Your task to perform on an android device: Open Chrome and go to the settings page Image 0: 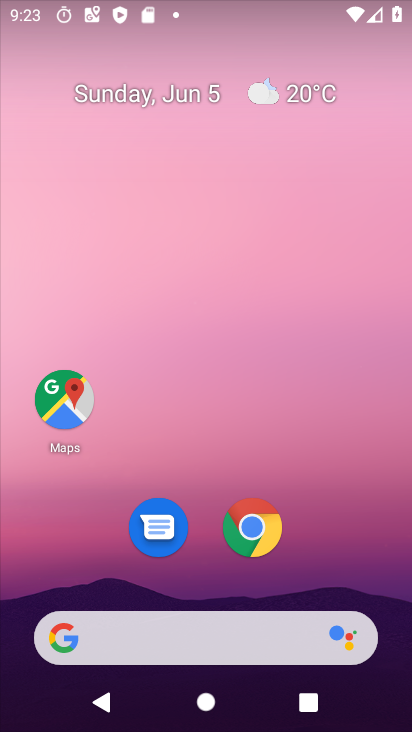
Step 0: drag from (344, 555) to (308, 115)
Your task to perform on an android device: Open Chrome and go to the settings page Image 1: 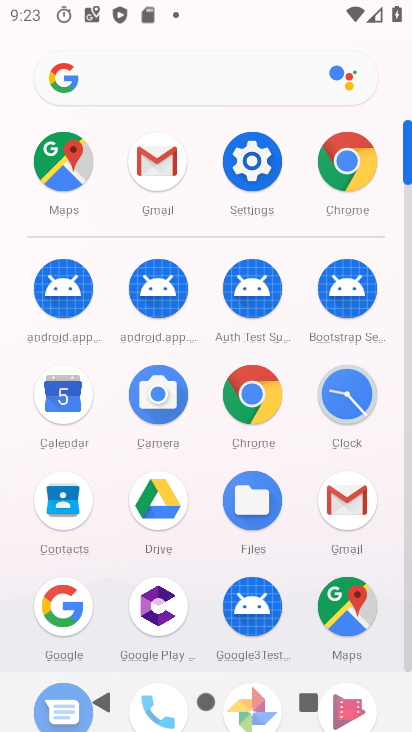
Step 1: click (350, 164)
Your task to perform on an android device: Open Chrome and go to the settings page Image 2: 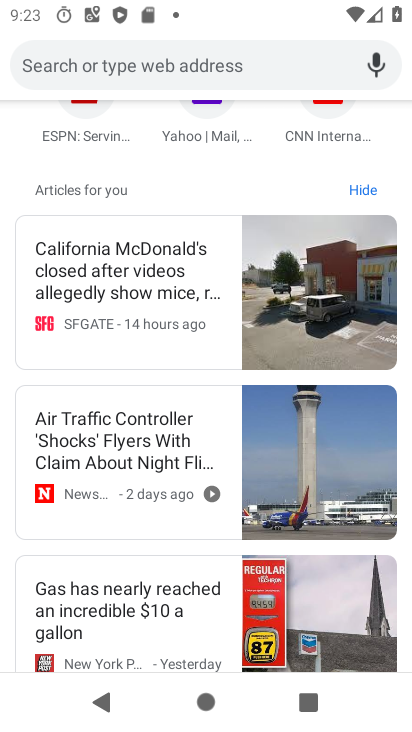
Step 2: task complete